Your task to perform on an android device: Open Youtube and go to the subscriptions tab Image 0: 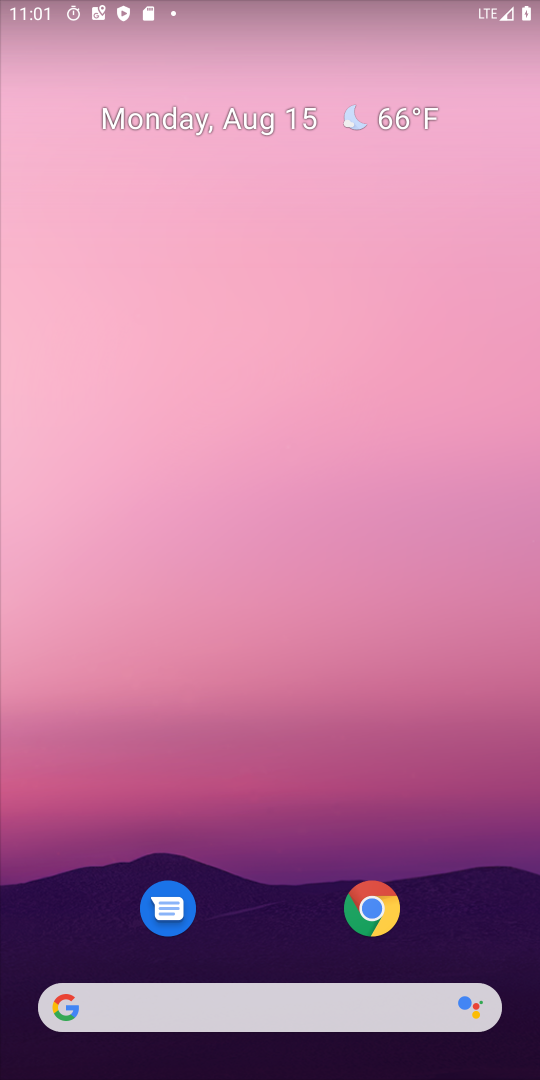
Step 0: drag from (273, 907) to (319, 19)
Your task to perform on an android device: Open Youtube and go to the subscriptions tab Image 1: 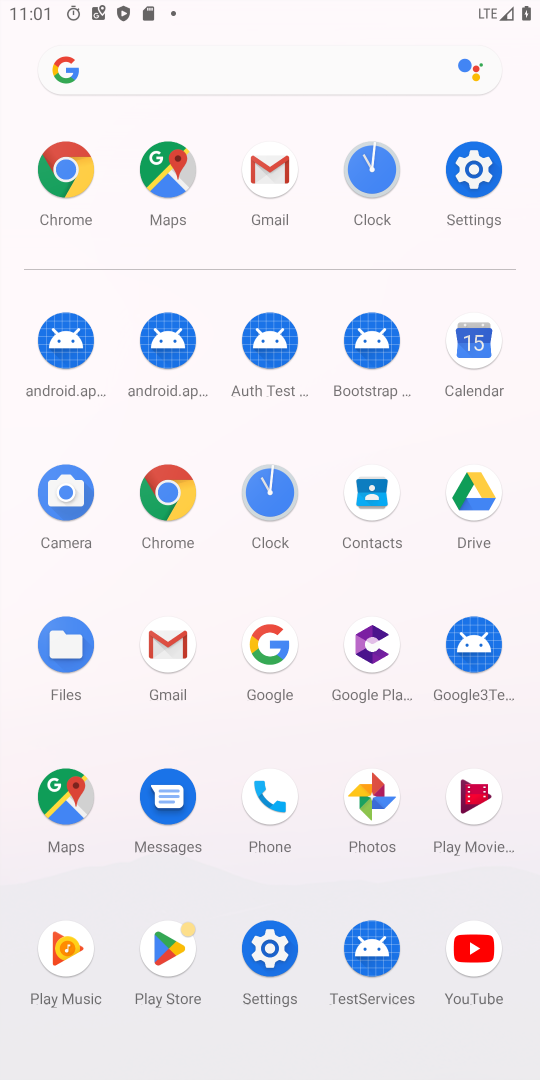
Step 1: click (481, 950)
Your task to perform on an android device: Open Youtube and go to the subscriptions tab Image 2: 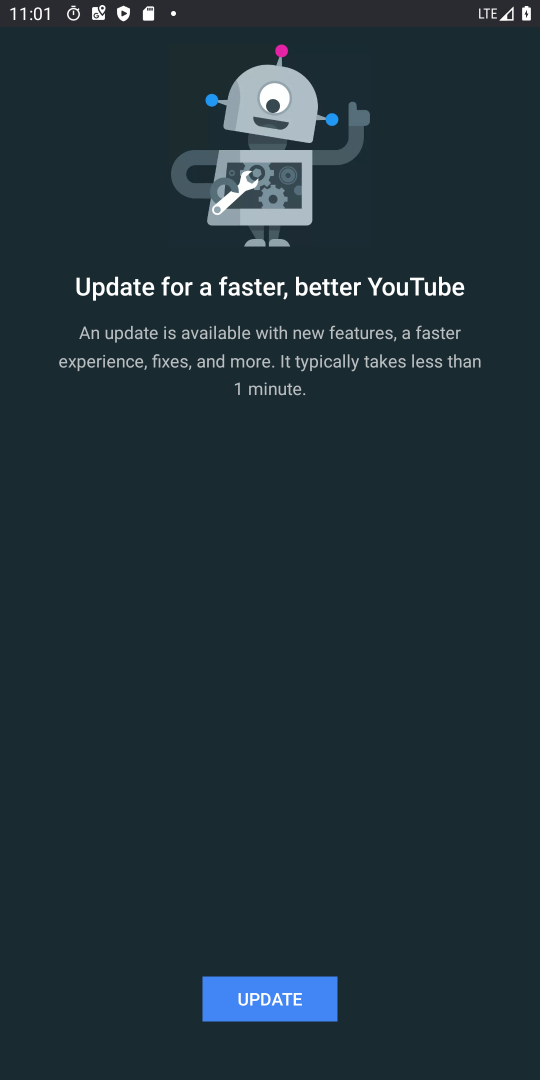
Step 2: click (481, 950)
Your task to perform on an android device: Open Youtube and go to the subscriptions tab Image 3: 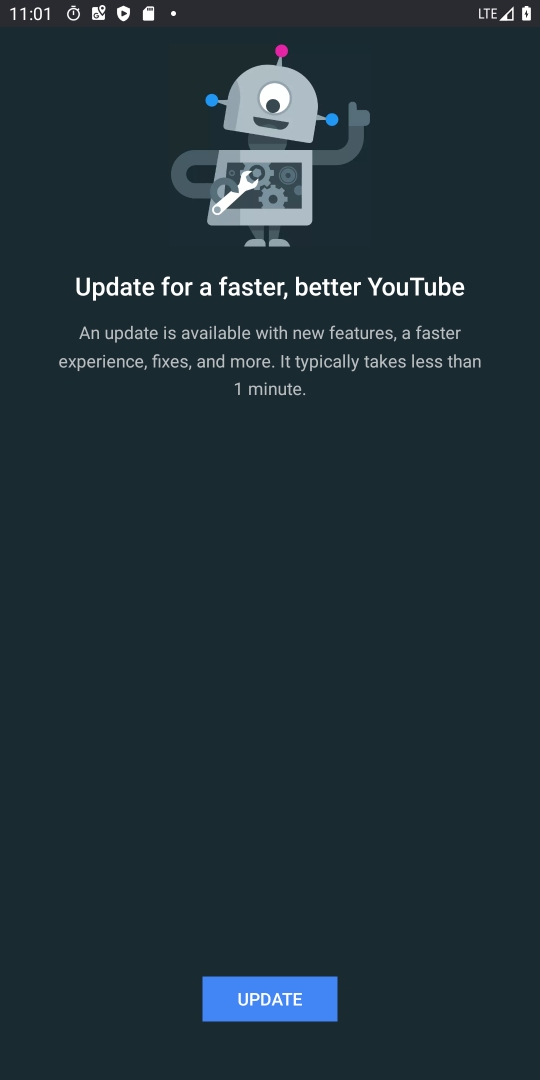
Step 3: click (295, 996)
Your task to perform on an android device: Open Youtube and go to the subscriptions tab Image 4: 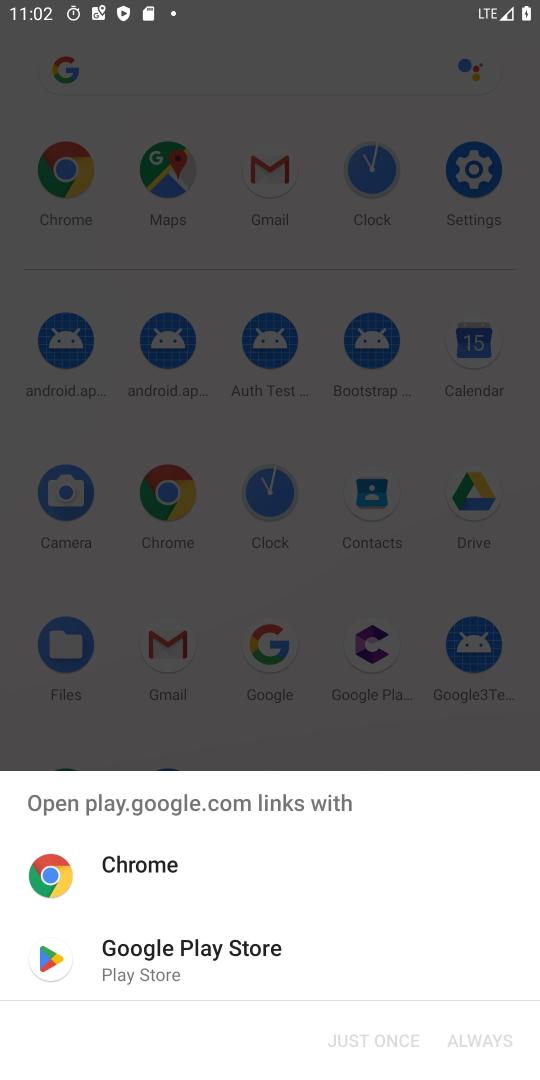
Step 4: click (236, 964)
Your task to perform on an android device: Open Youtube and go to the subscriptions tab Image 5: 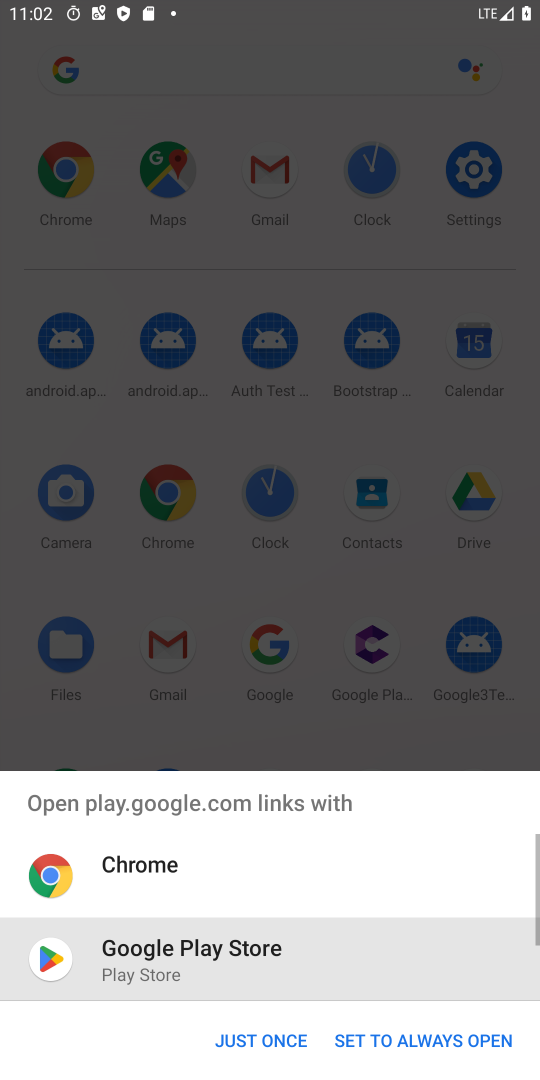
Step 5: click (236, 964)
Your task to perform on an android device: Open Youtube and go to the subscriptions tab Image 6: 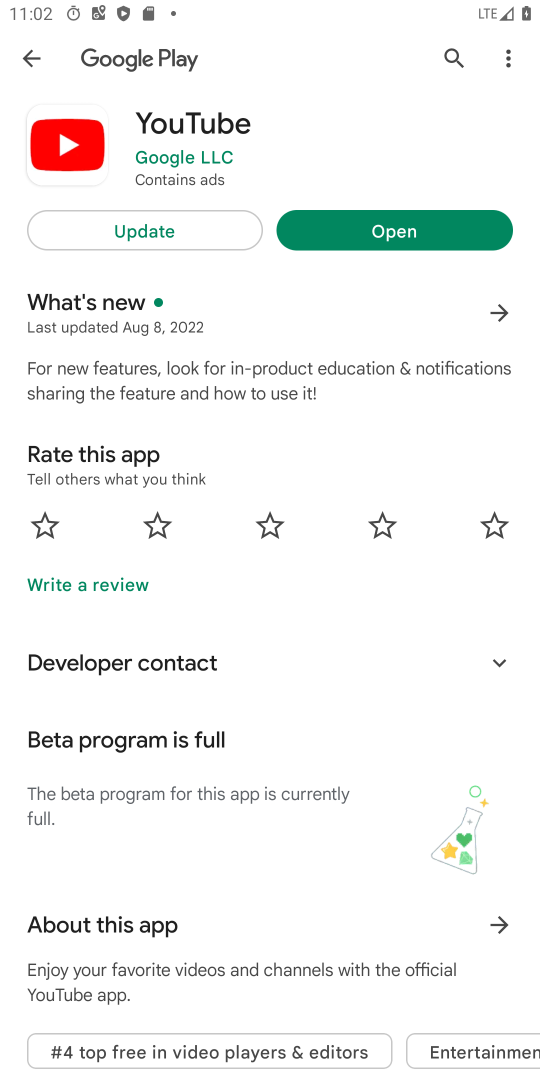
Step 6: click (155, 221)
Your task to perform on an android device: Open Youtube and go to the subscriptions tab Image 7: 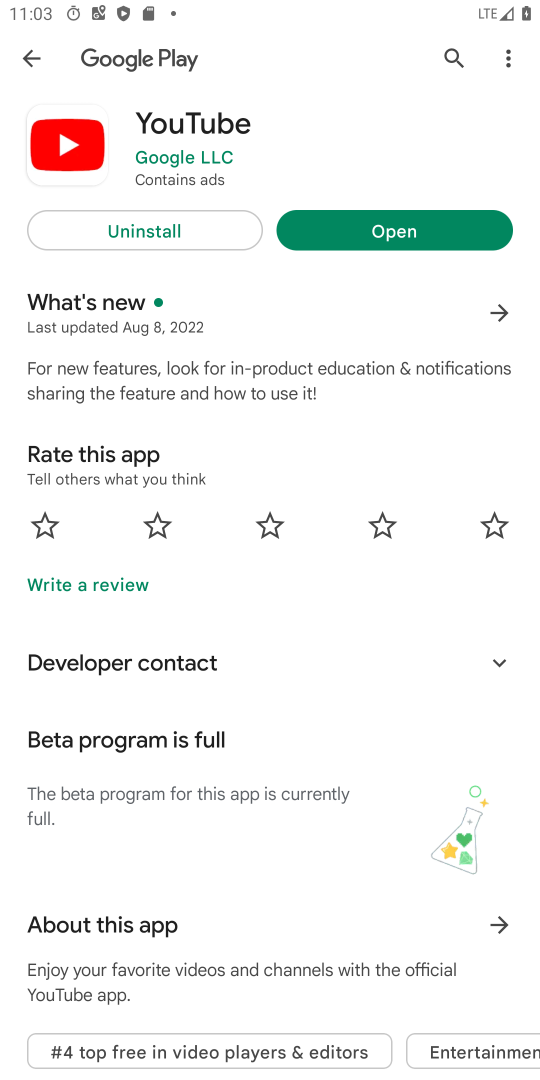
Step 7: click (356, 221)
Your task to perform on an android device: Open Youtube and go to the subscriptions tab Image 8: 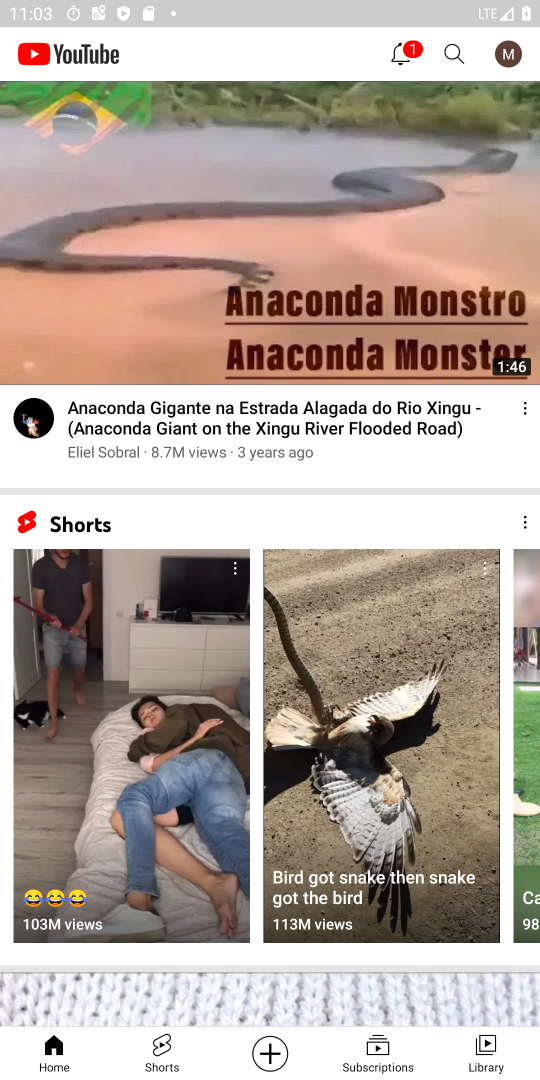
Step 8: click (386, 1053)
Your task to perform on an android device: Open Youtube and go to the subscriptions tab Image 9: 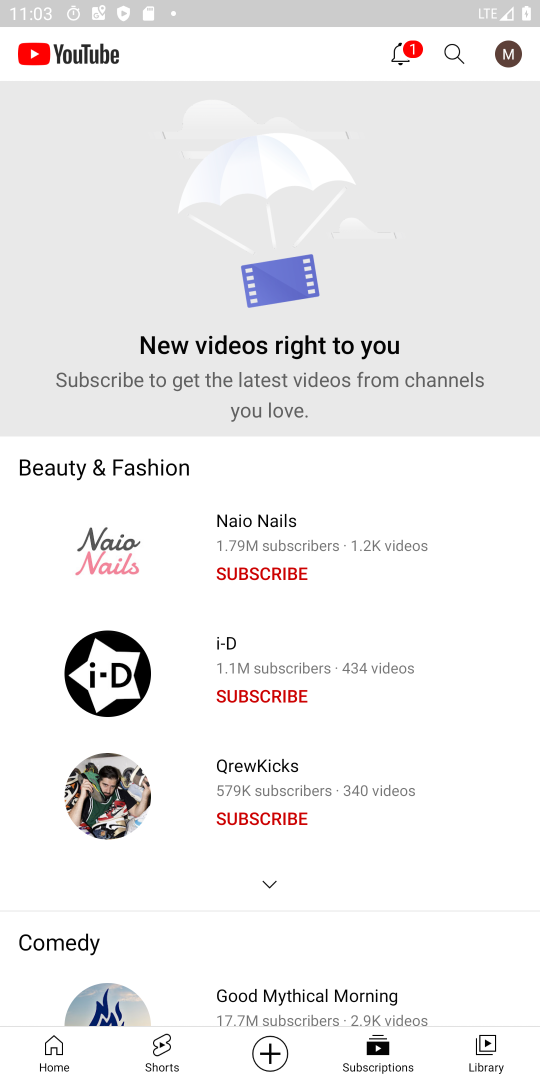
Step 9: task complete